Your task to perform on an android device: open the mobile data screen to see how much data has been used Image 0: 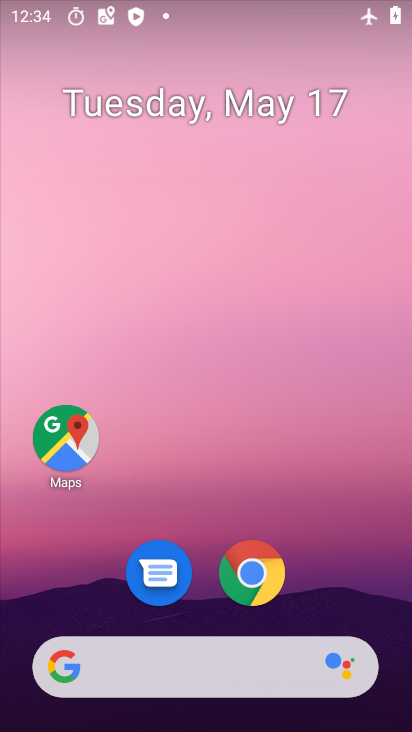
Step 0: drag from (180, 646) to (306, 13)
Your task to perform on an android device: open the mobile data screen to see how much data has been used Image 1: 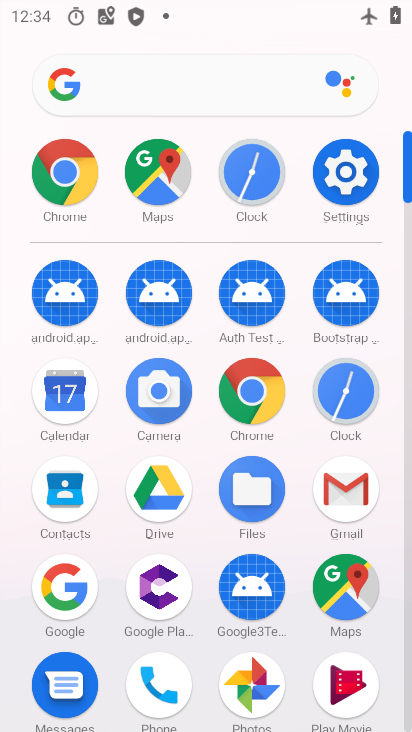
Step 1: click (350, 178)
Your task to perform on an android device: open the mobile data screen to see how much data has been used Image 2: 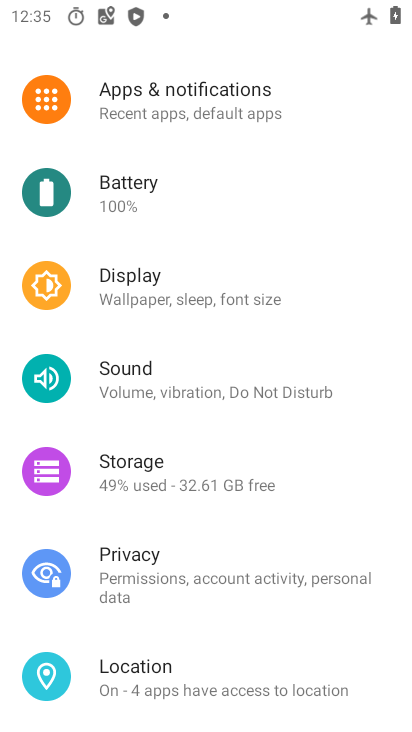
Step 2: drag from (260, 120) to (266, 728)
Your task to perform on an android device: open the mobile data screen to see how much data has been used Image 3: 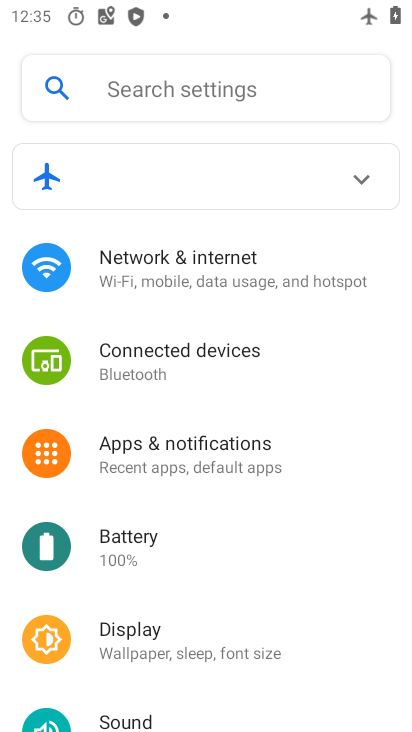
Step 3: click (280, 272)
Your task to perform on an android device: open the mobile data screen to see how much data has been used Image 4: 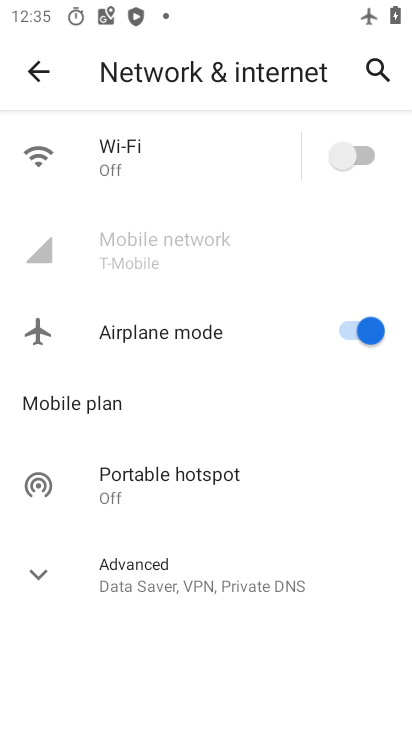
Step 4: click (265, 250)
Your task to perform on an android device: open the mobile data screen to see how much data has been used Image 5: 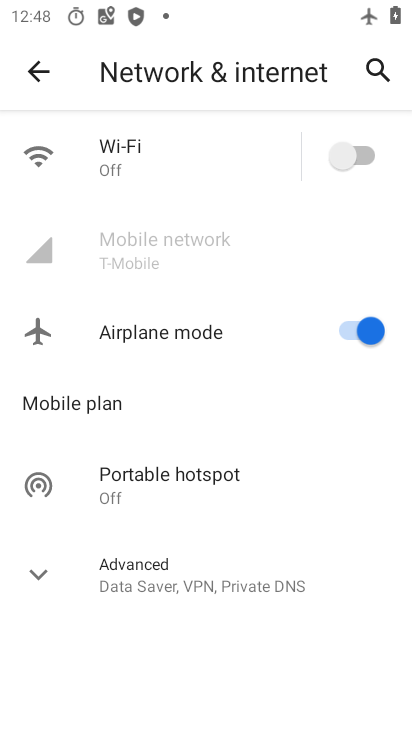
Step 5: task complete